Your task to perform on an android device: change timer sound Image 0: 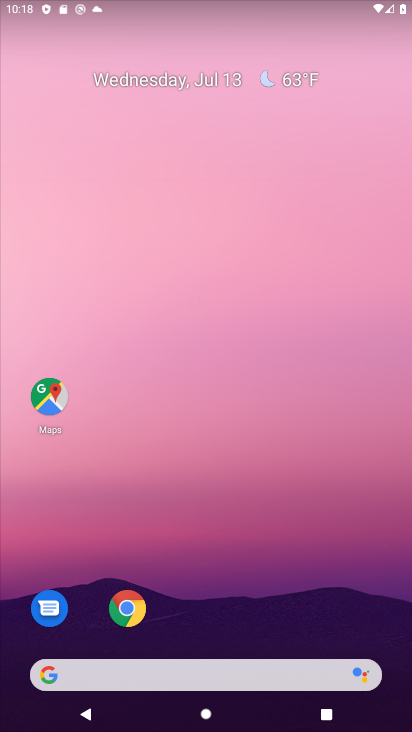
Step 0: drag from (179, 638) to (272, 134)
Your task to perform on an android device: change timer sound Image 1: 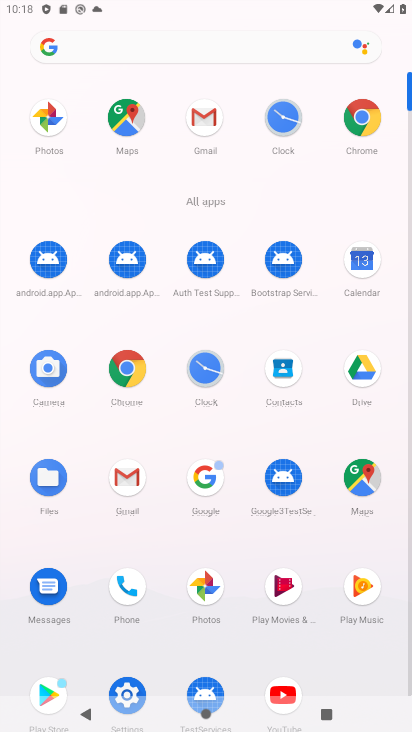
Step 1: click (213, 379)
Your task to perform on an android device: change timer sound Image 2: 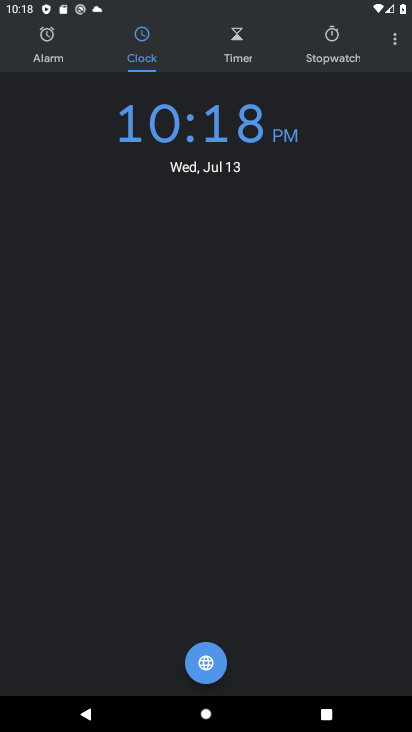
Step 2: click (403, 42)
Your task to perform on an android device: change timer sound Image 3: 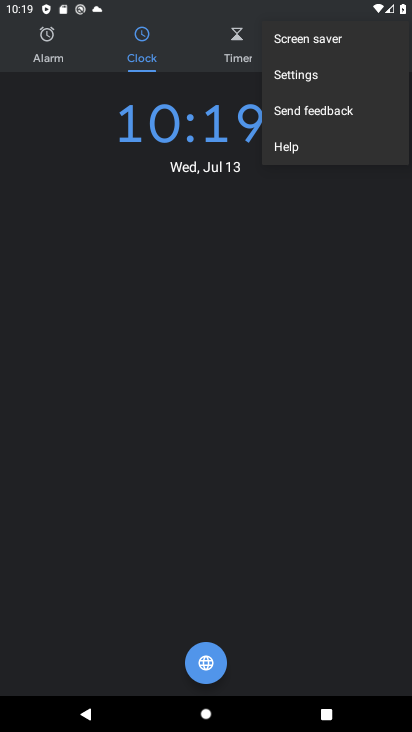
Step 3: click (375, 73)
Your task to perform on an android device: change timer sound Image 4: 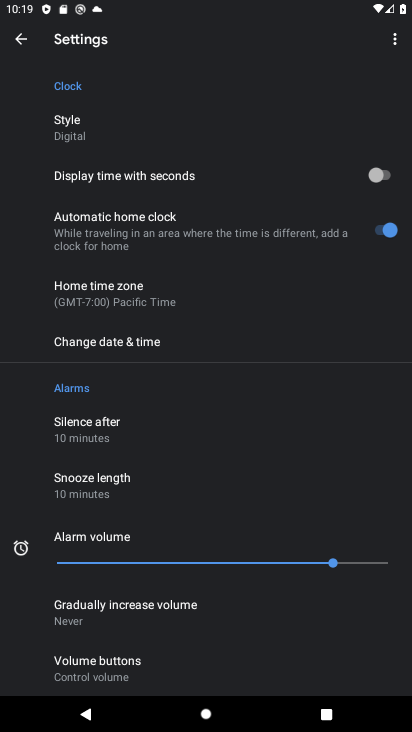
Step 4: drag from (132, 552) to (216, 414)
Your task to perform on an android device: change timer sound Image 5: 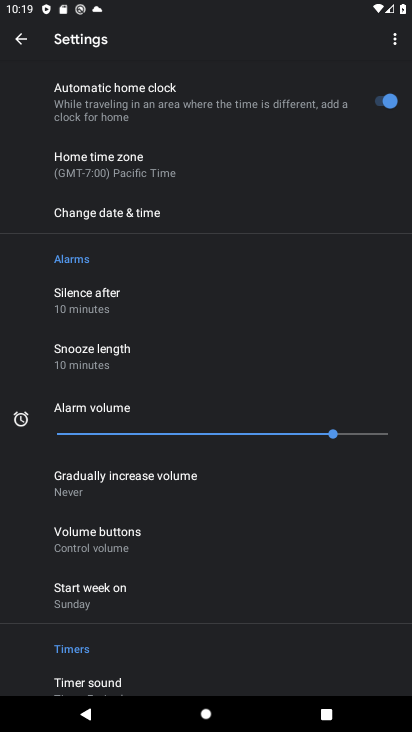
Step 5: drag from (136, 666) to (201, 483)
Your task to perform on an android device: change timer sound Image 6: 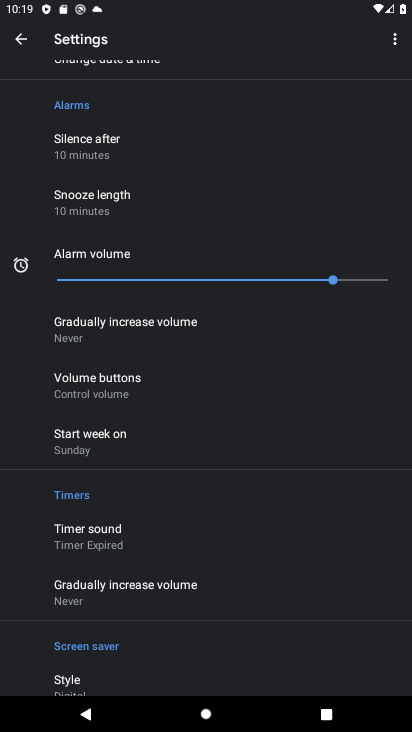
Step 6: click (135, 549)
Your task to perform on an android device: change timer sound Image 7: 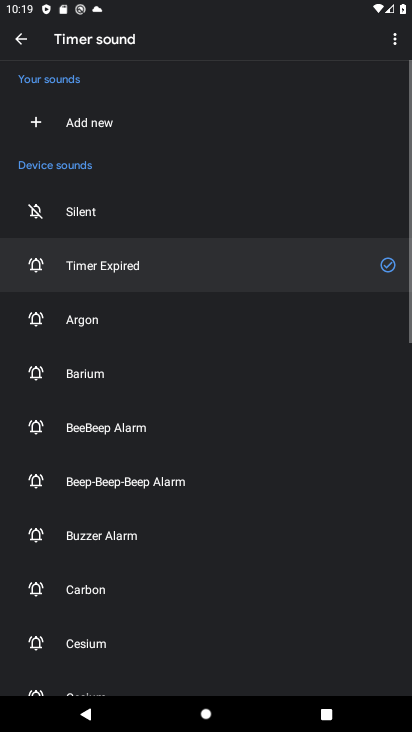
Step 7: click (180, 596)
Your task to perform on an android device: change timer sound Image 8: 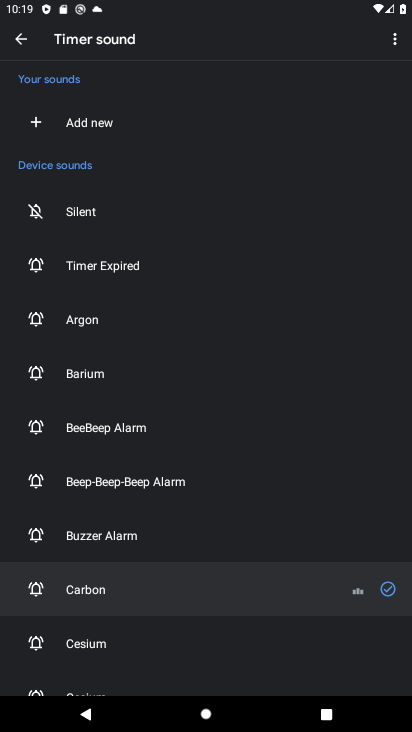
Step 8: task complete